Your task to perform on an android device: change notification settings in the gmail app Image 0: 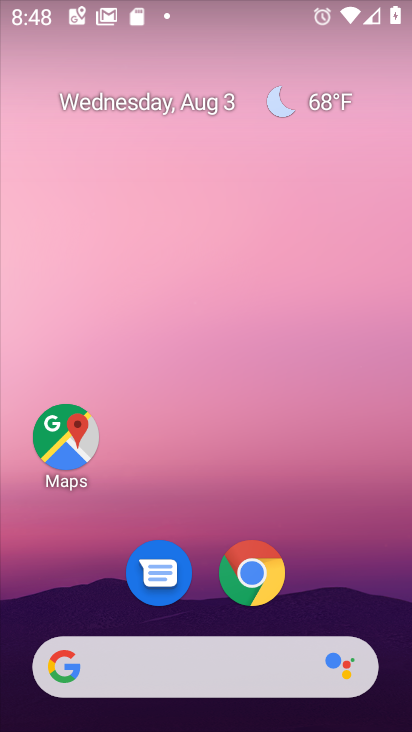
Step 0: drag from (321, 616) to (333, 20)
Your task to perform on an android device: change notification settings in the gmail app Image 1: 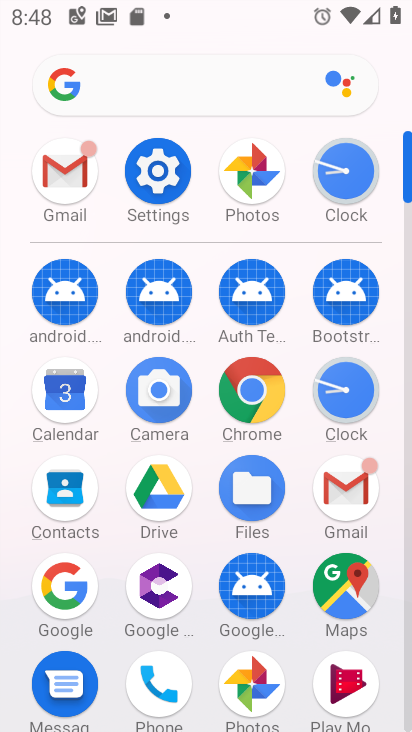
Step 1: click (67, 181)
Your task to perform on an android device: change notification settings in the gmail app Image 2: 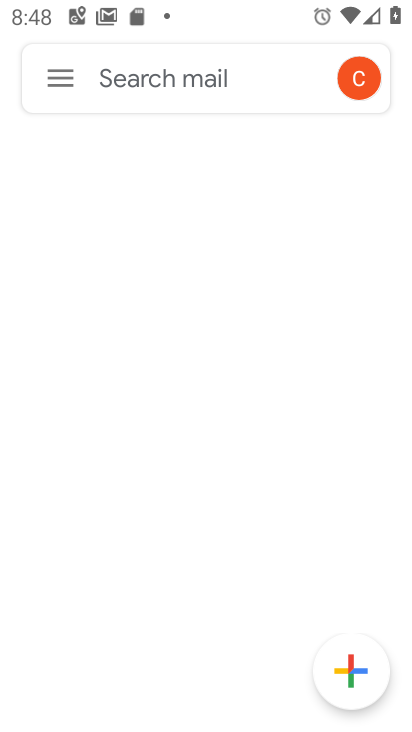
Step 2: click (57, 79)
Your task to perform on an android device: change notification settings in the gmail app Image 3: 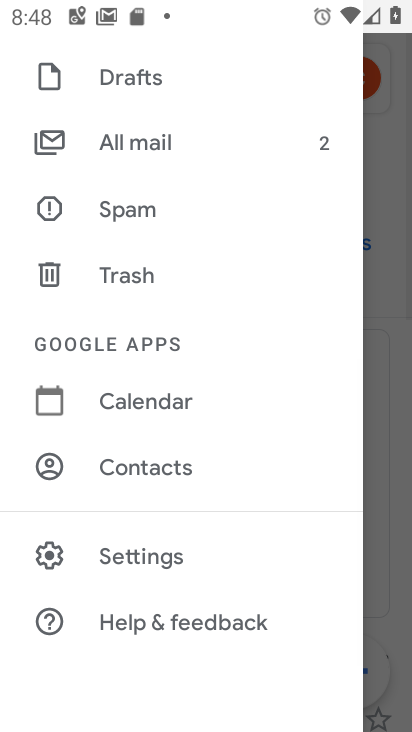
Step 3: click (120, 557)
Your task to perform on an android device: change notification settings in the gmail app Image 4: 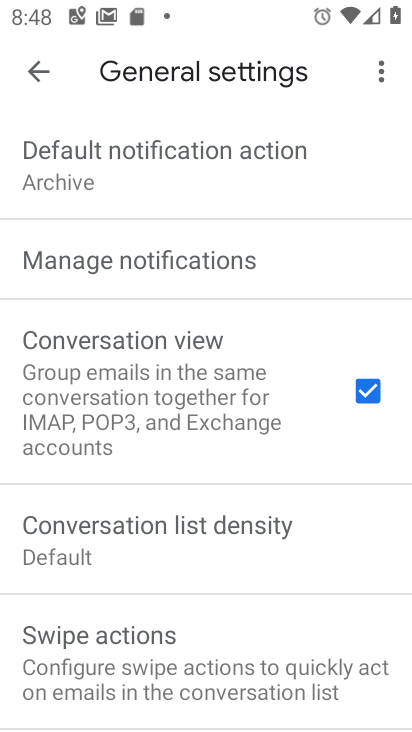
Step 4: click (128, 268)
Your task to perform on an android device: change notification settings in the gmail app Image 5: 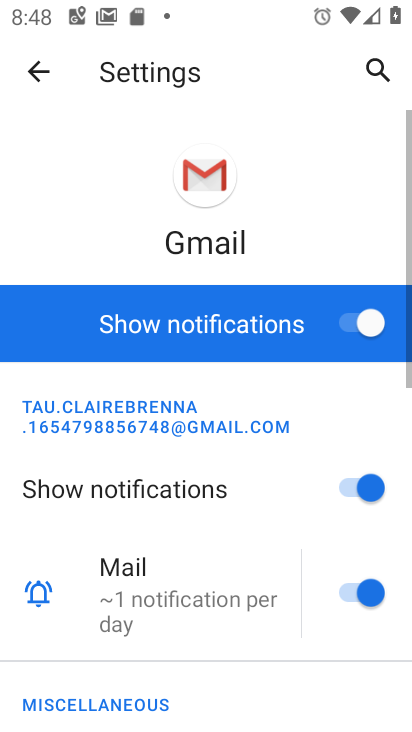
Step 5: click (360, 329)
Your task to perform on an android device: change notification settings in the gmail app Image 6: 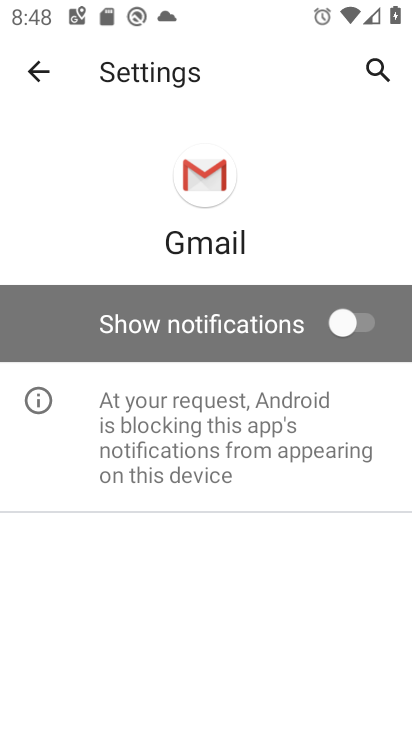
Step 6: task complete